Your task to perform on an android device: allow notifications from all sites in the chrome app Image 0: 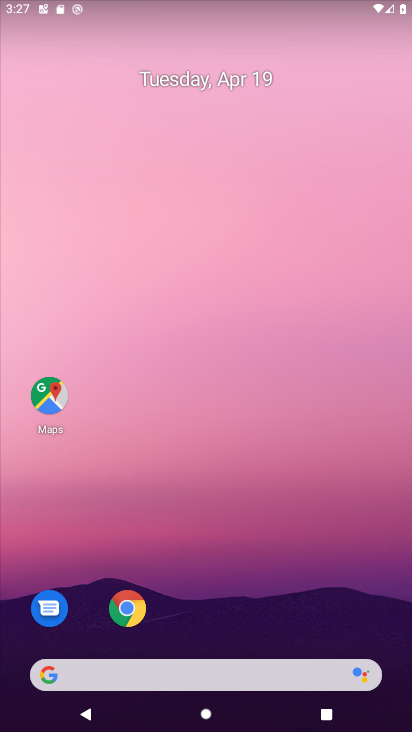
Step 0: click (125, 610)
Your task to perform on an android device: allow notifications from all sites in the chrome app Image 1: 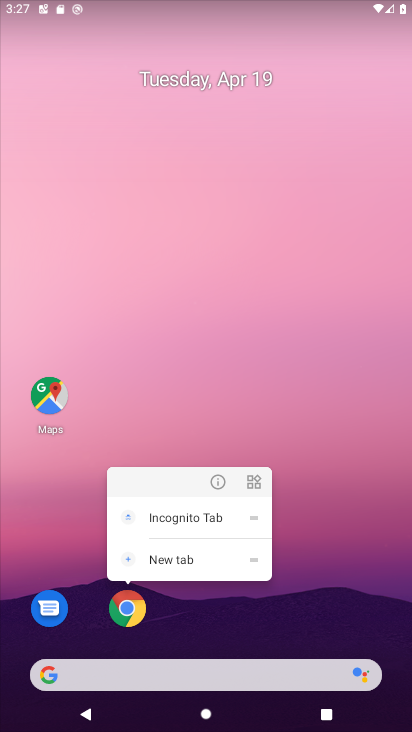
Step 1: click (131, 604)
Your task to perform on an android device: allow notifications from all sites in the chrome app Image 2: 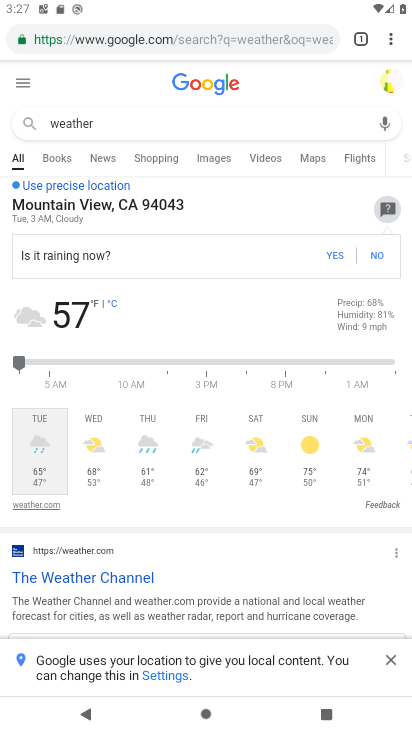
Step 2: click (391, 33)
Your task to perform on an android device: allow notifications from all sites in the chrome app Image 3: 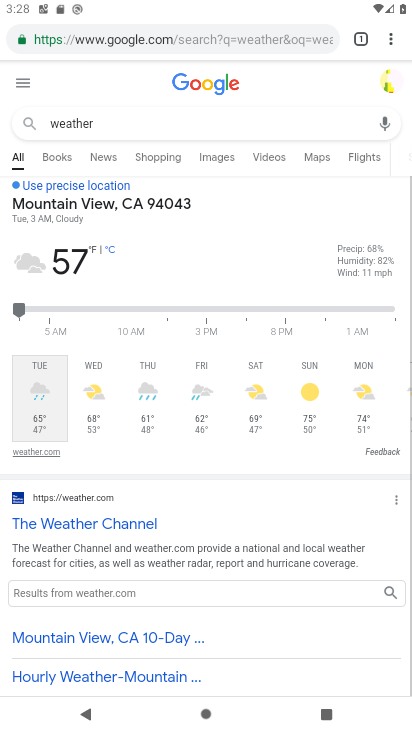
Step 3: drag from (389, 37) to (252, 441)
Your task to perform on an android device: allow notifications from all sites in the chrome app Image 4: 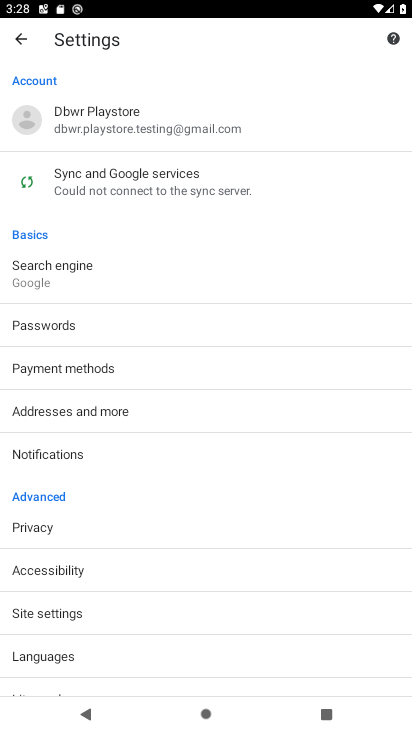
Step 4: drag from (130, 645) to (172, 293)
Your task to perform on an android device: allow notifications from all sites in the chrome app Image 5: 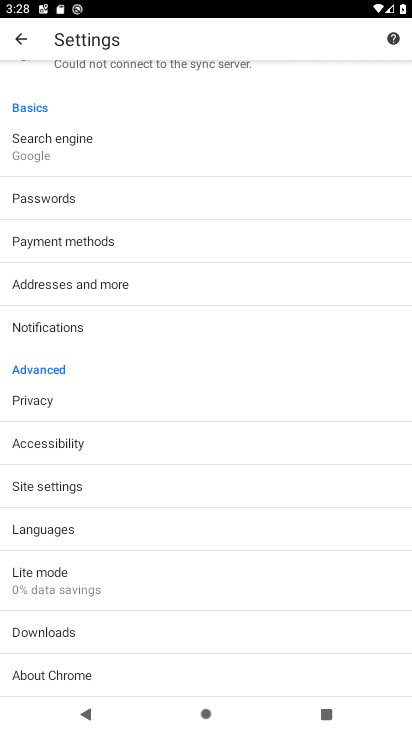
Step 5: drag from (94, 634) to (132, 421)
Your task to perform on an android device: allow notifications from all sites in the chrome app Image 6: 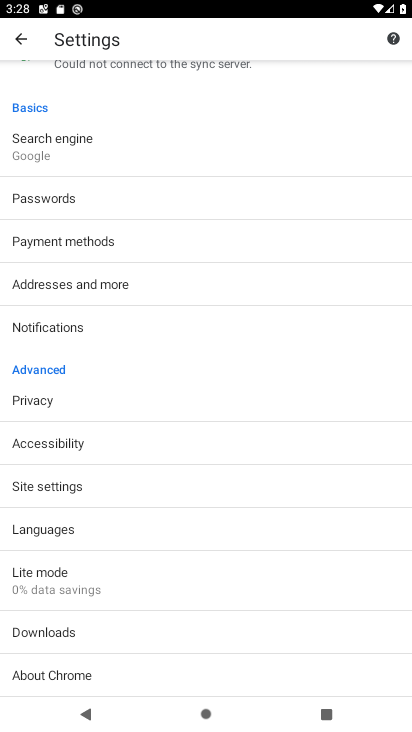
Step 6: click (51, 332)
Your task to perform on an android device: allow notifications from all sites in the chrome app Image 7: 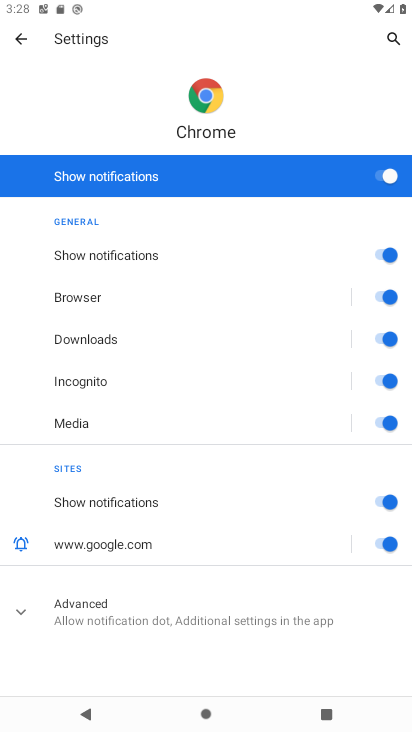
Step 7: drag from (257, 612) to (232, 176)
Your task to perform on an android device: allow notifications from all sites in the chrome app Image 8: 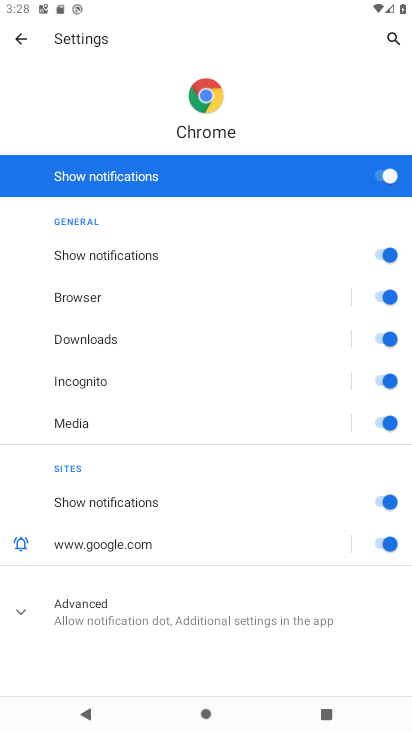
Step 8: click (110, 617)
Your task to perform on an android device: allow notifications from all sites in the chrome app Image 9: 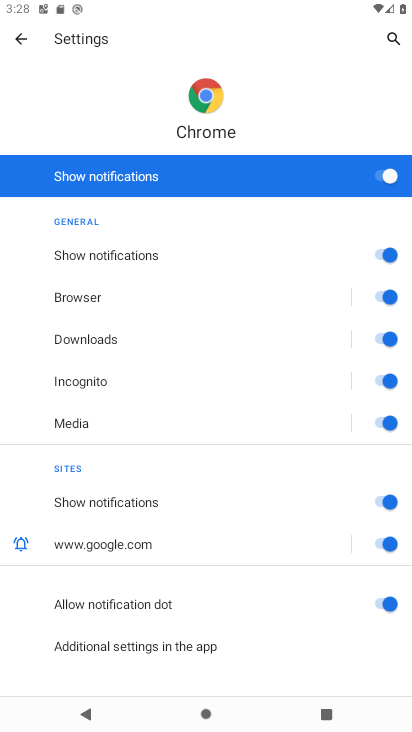
Step 9: task complete